Your task to perform on an android device: Open Yahoo.com Image 0: 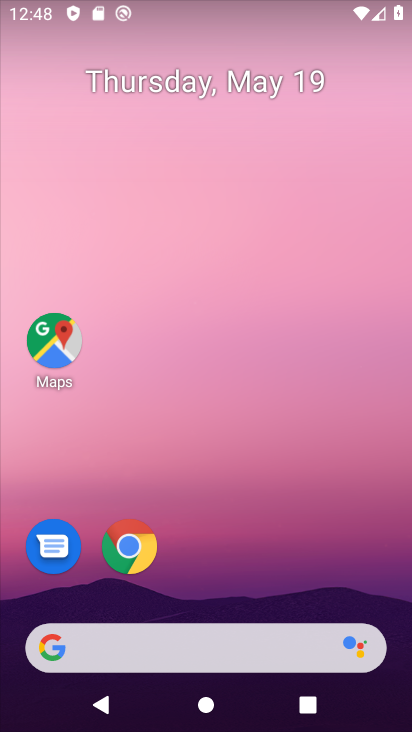
Step 0: click (128, 545)
Your task to perform on an android device: Open Yahoo.com Image 1: 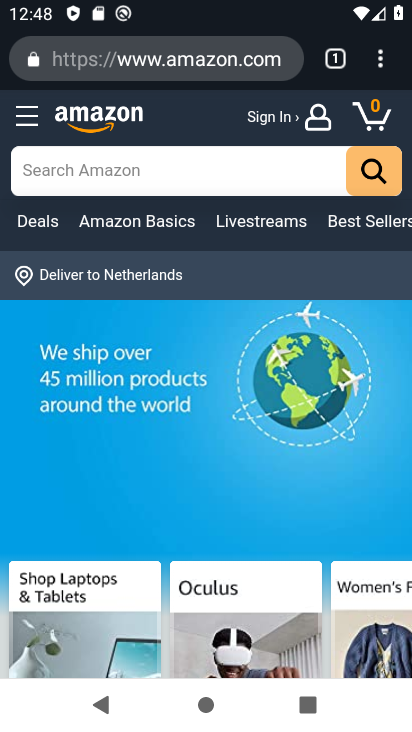
Step 1: click (329, 55)
Your task to perform on an android device: Open Yahoo.com Image 2: 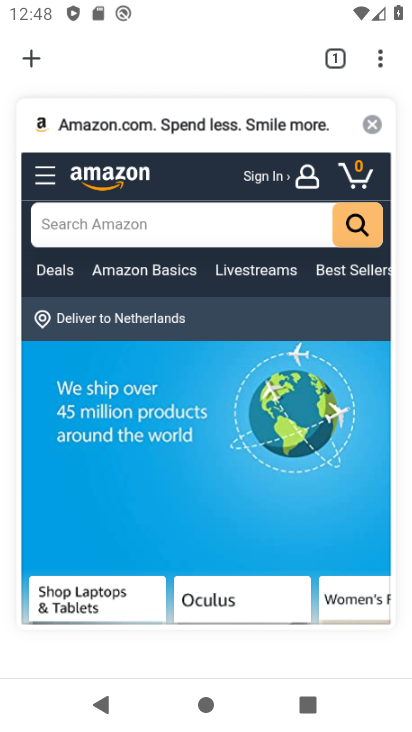
Step 2: click (29, 47)
Your task to perform on an android device: Open Yahoo.com Image 3: 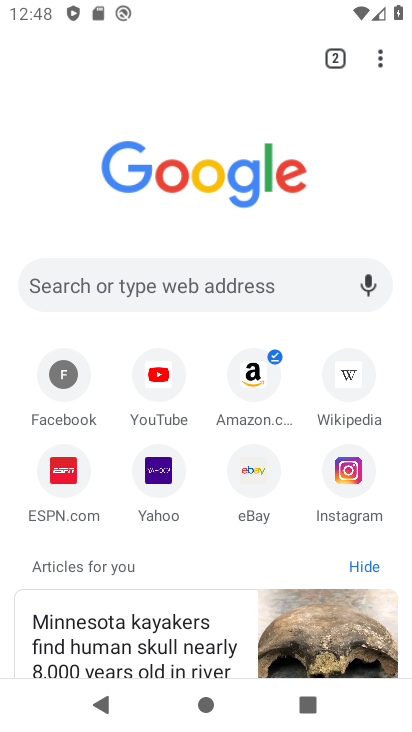
Step 3: click (156, 459)
Your task to perform on an android device: Open Yahoo.com Image 4: 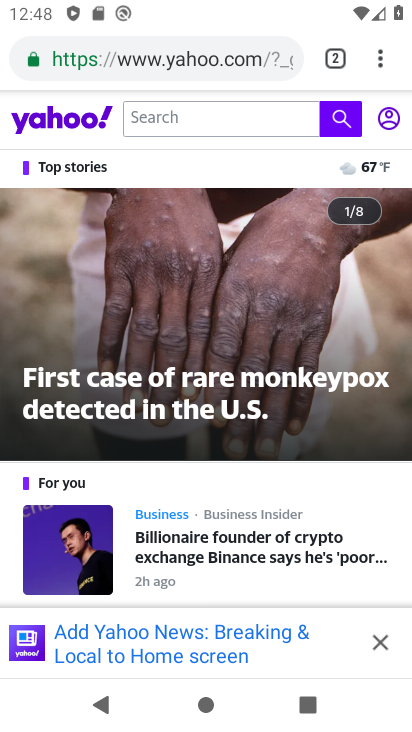
Step 4: click (382, 641)
Your task to perform on an android device: Open Yahoo.com Image 5: 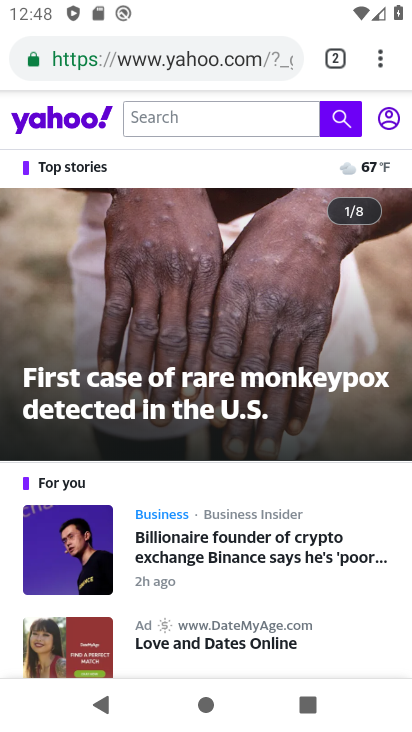
Step 5: task complete